Your task to perform on an android device: Open Google Image 0: 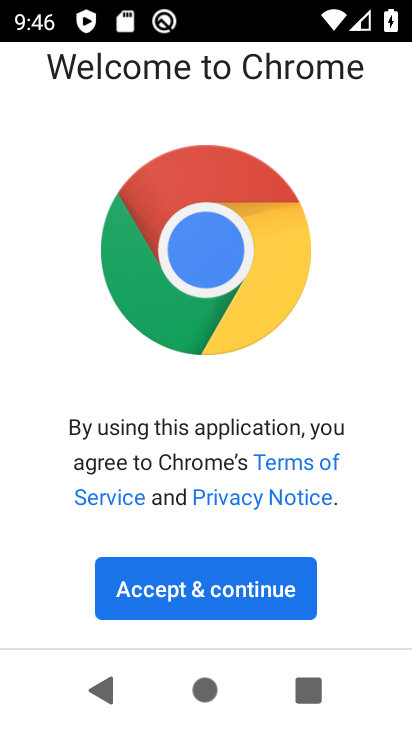
Step 0: click (197, 587)
Your task to perform on an android device: Open Google Image 1: 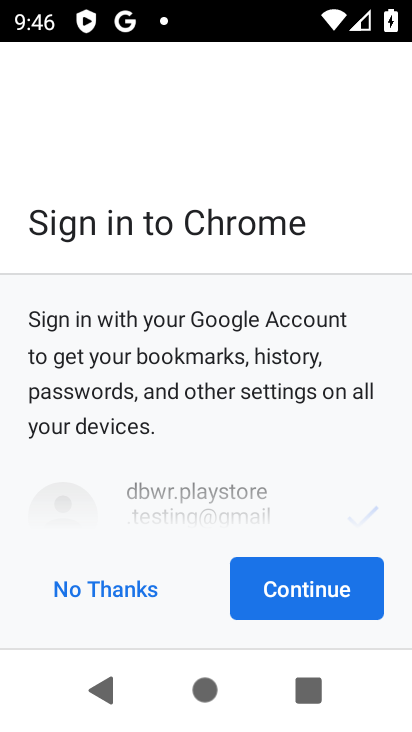
Step 1: click (291, 593)
Your task to perform on an android device: Open Google Image 2: 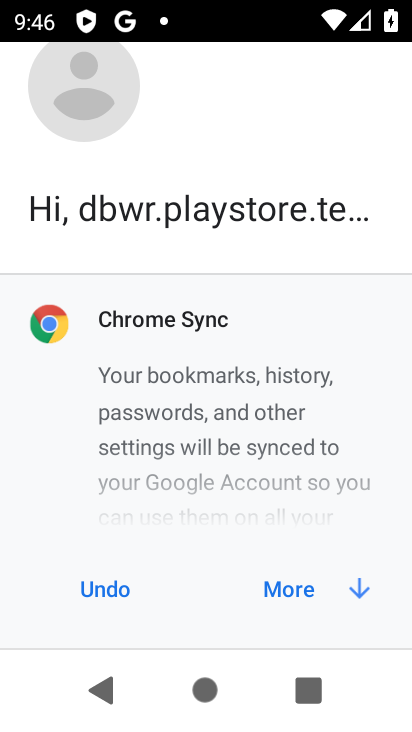
Step 2: click (291, 593)
Your task to perform on an android device: Open Google Image 3: 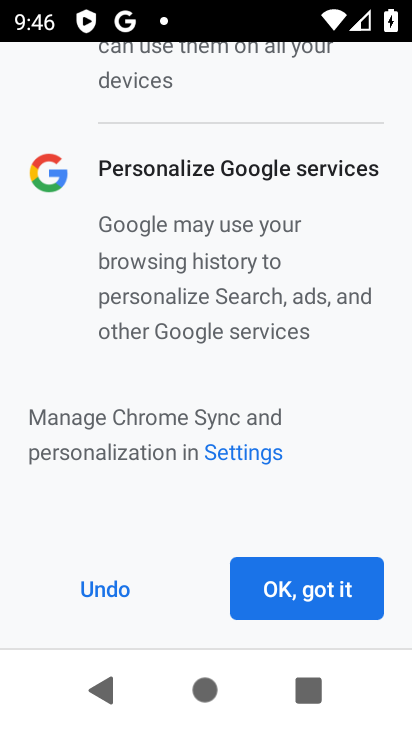
Step 3: click (291, 593)
Your task to perform on an android device: Open Google Image 4: 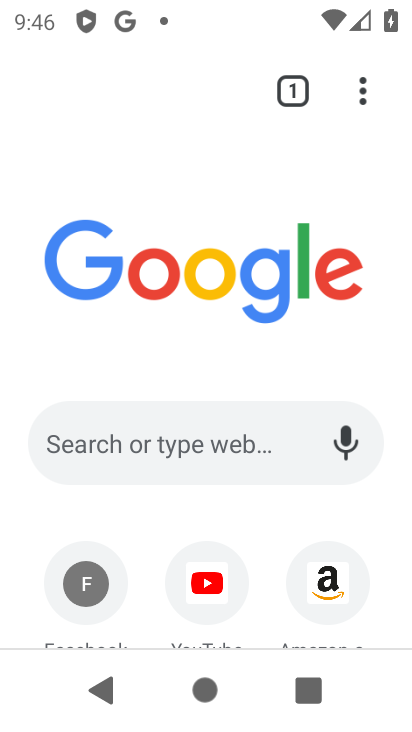
Step 4: click (155, 441)
Your task to perform on an android device: Open Google Image 5: 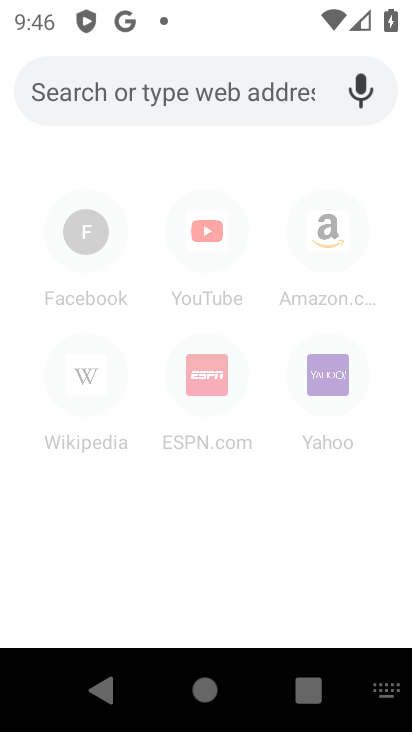
Step 5: type "Google"
Your task to perform on an android device: Open Google Image 6: 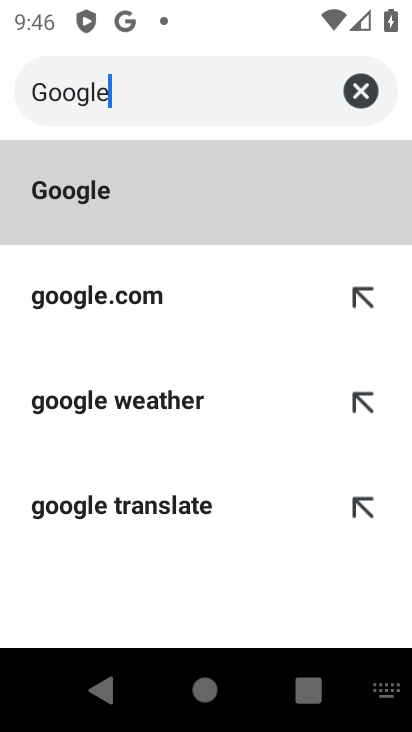
Step 6: type ""
Your task to perform on an android device: Open Google Image 7: 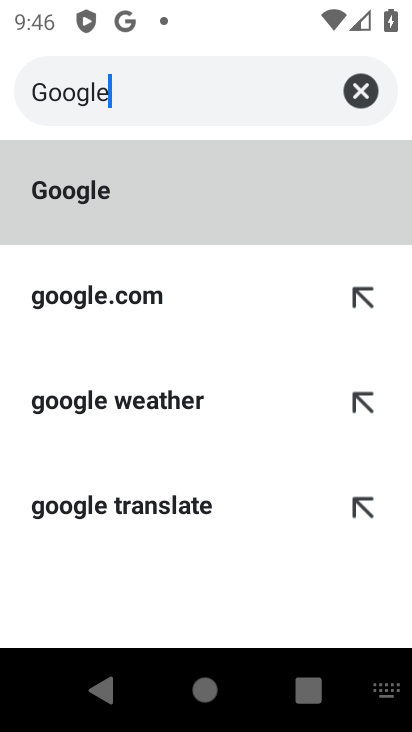
Step 7: click (119, 196)
Your task to perform on an android device: Open Google Image 8: 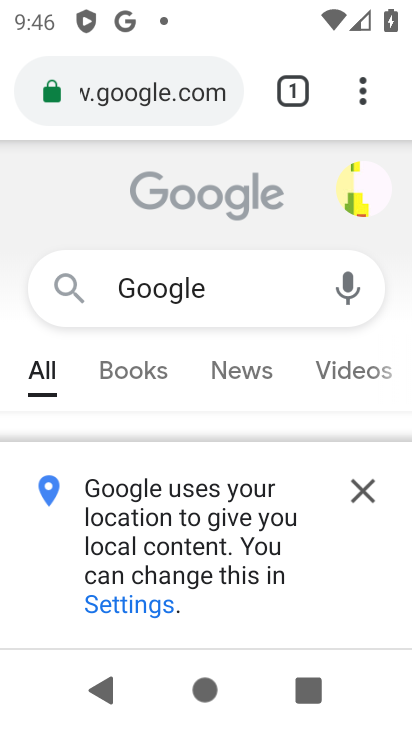
Step 8: click (368, 488)
Your task to perform on an android device: Open Google Image 9: 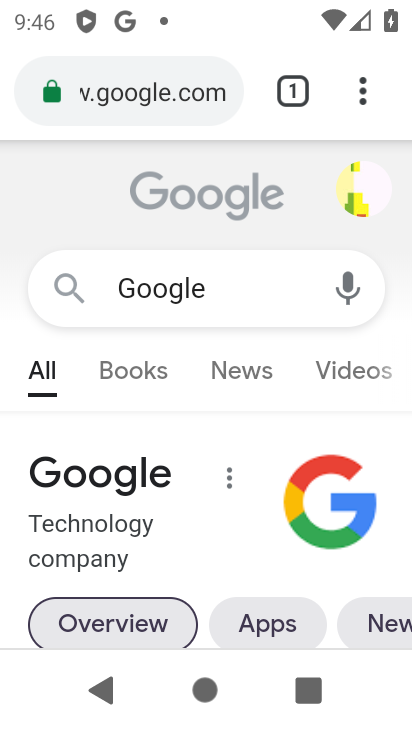
Step 9: drag from (257, 560) to (266, 233)
Your task to perform on an android device: Open Google Image 10: 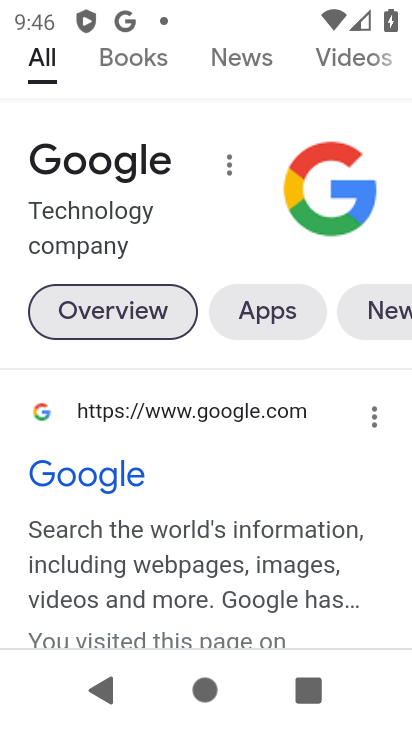
Step 10: click (78, 467)
Your task to perform on an android device: Open Google Image 11: 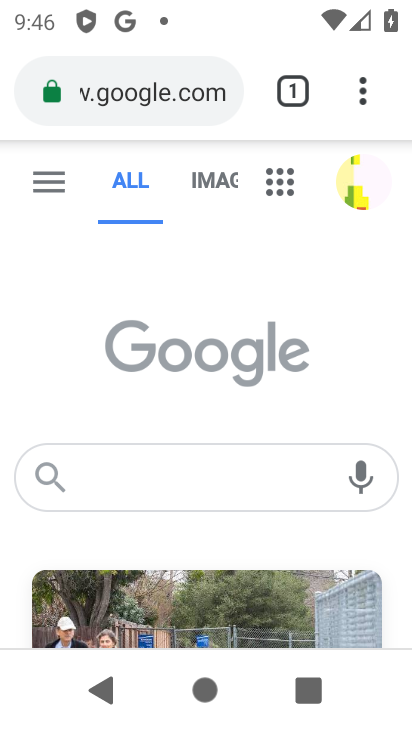
Step 11: task complete